Your task to perform on an android device: See recent photos Image 0: 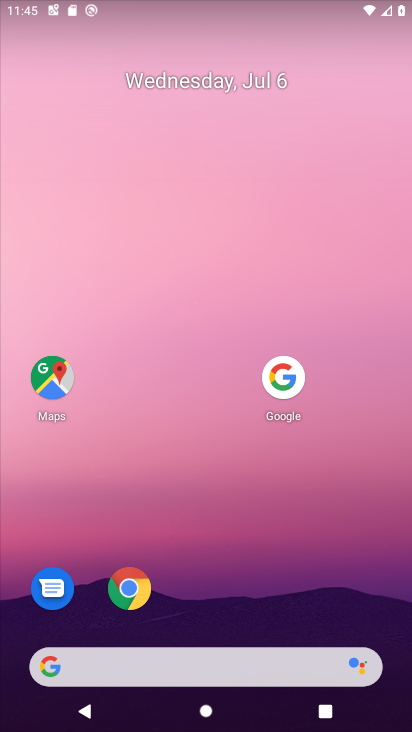
Step 0: drag from (160, 659) to (310, 197)
Your task to perform on an android device: See recent photos Image 1: 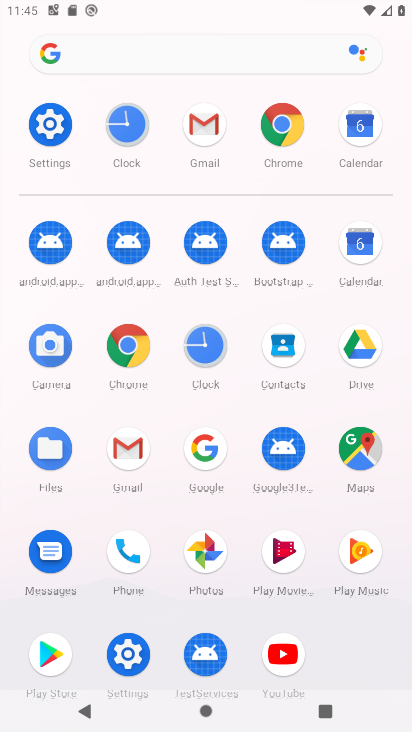
Step 1: click (202, 552)
Your task to perform on an android device: See recent photos Image 2: 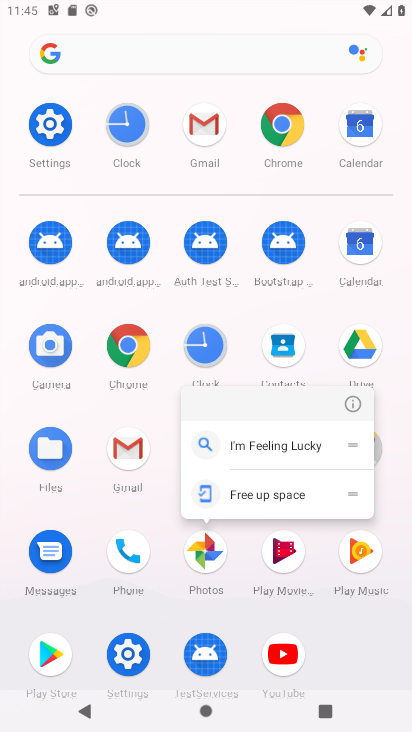
Step 2: click (193, 552)
Your task to perform on an android device: See recent photos Image 3: 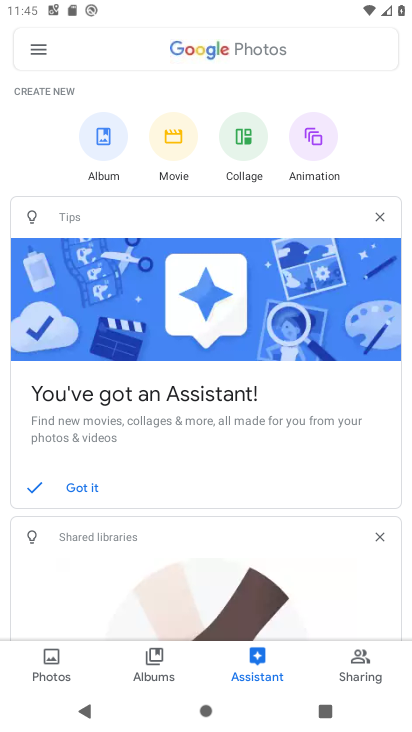
Step 3: click (49, 665)
Your task to perform on an android device: See recent photos Image 4: 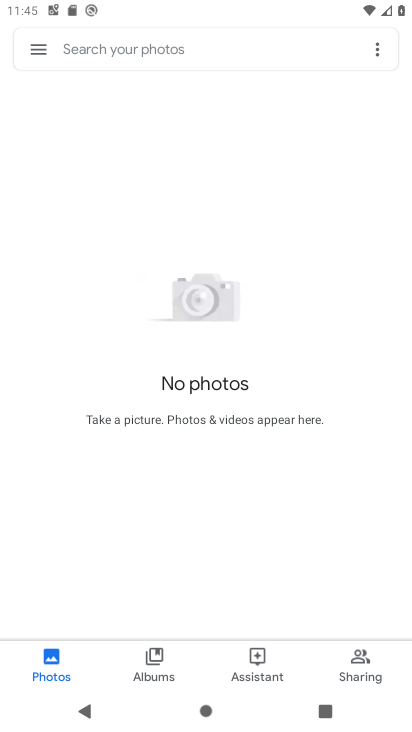
Step 4: task complete